Your task to perform on an android device: see sites visited before in the chrome app Image 0: 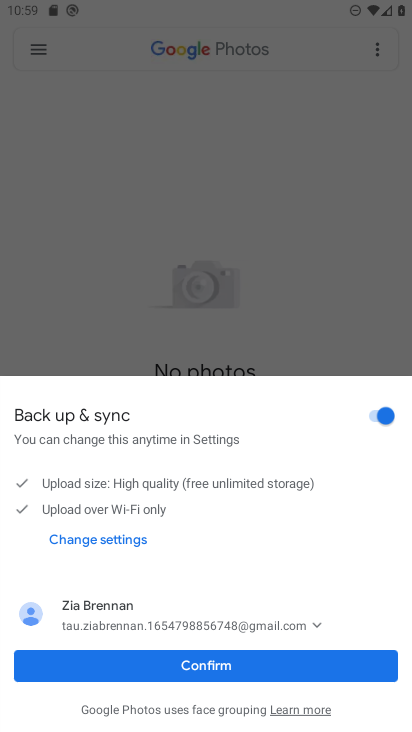
Step 0: press home button
Your task to perform on an android device: see sites visited before in the chrome app Image 1: 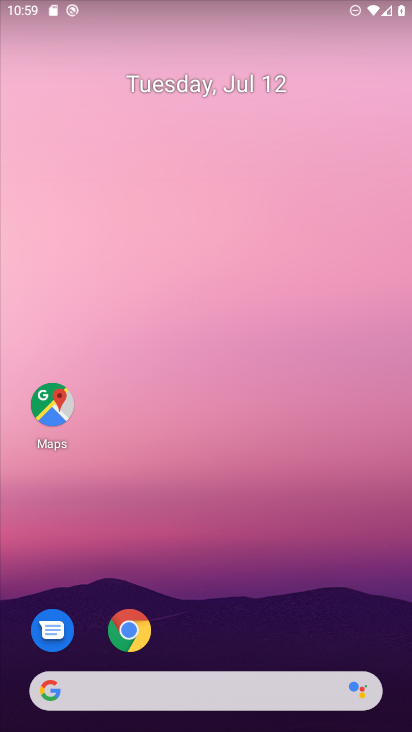
Step 1: click (128, 631)
Your task to perform on an android device: see sites visited before in the chrome app Image 2: 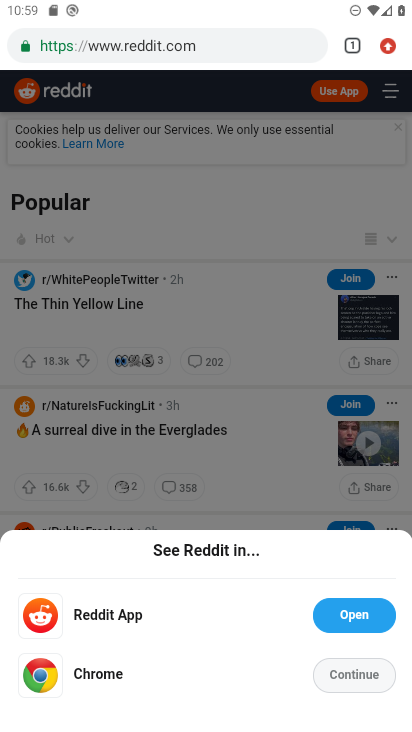
Step 2: task complete